Your task to perform on an android device: toggle javascript in the chrome app Image 0: 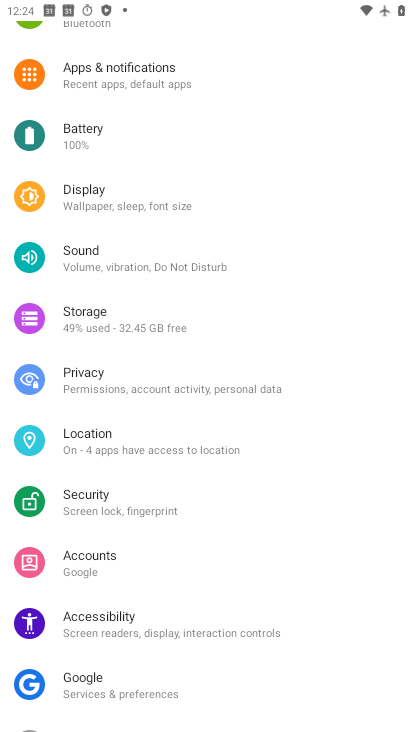
Step 0: press home button
Your task to perform on an android device: toggle javascript in the chrome app Image 1: 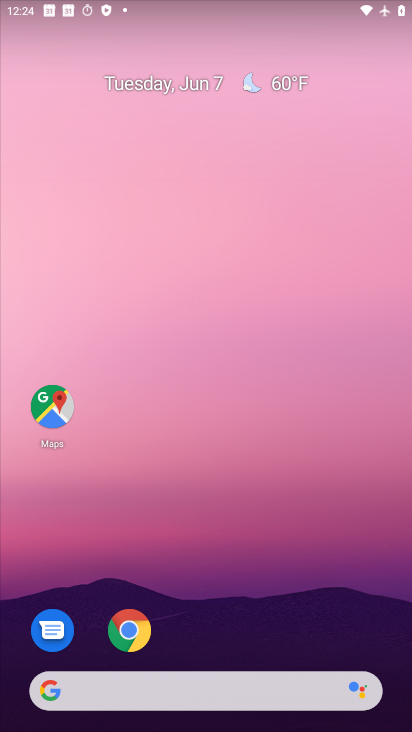
Step 1: drag from (365, 592) to (319, 83)
Your task to perform on an android device: toggle javascript in the chrome app Image 2: 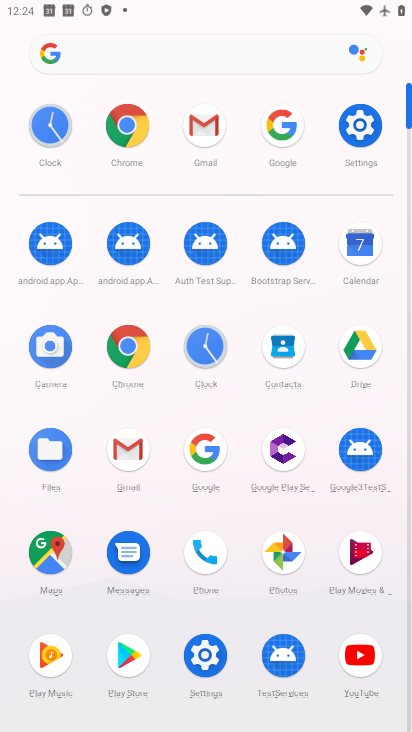
Step 2: click (145, 120)
Your task to perform on an android device: toggle javascript in the chrome app Image 3: 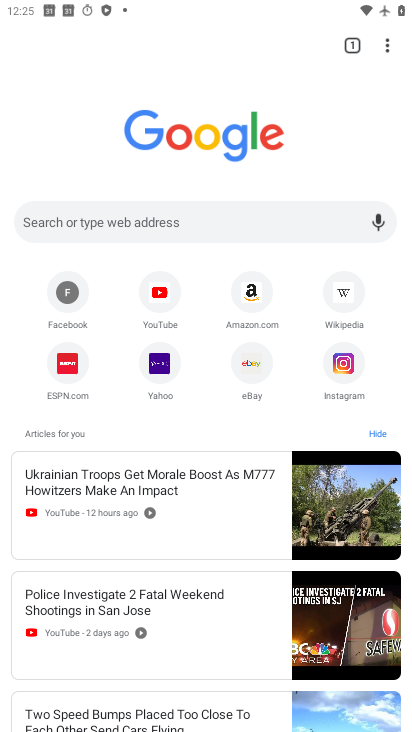
Step 3: click (382, 48)
Your task to perform on an android device: toggle javascript in the chrome app Image 4: 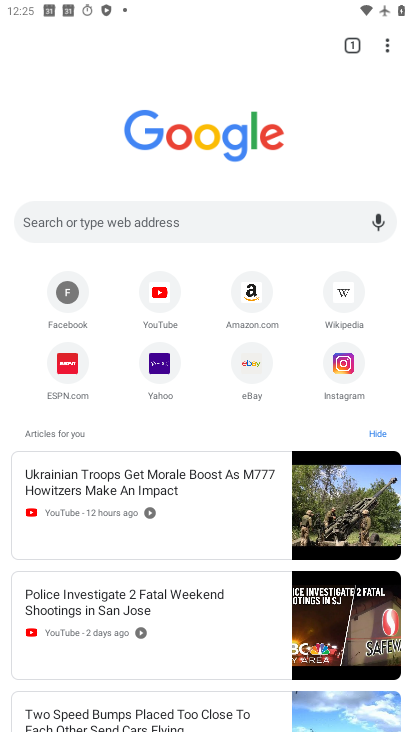
Step 4: click (383, 40)
Your task to perform on an android device: toggle javascript in the chrome app Image 5: 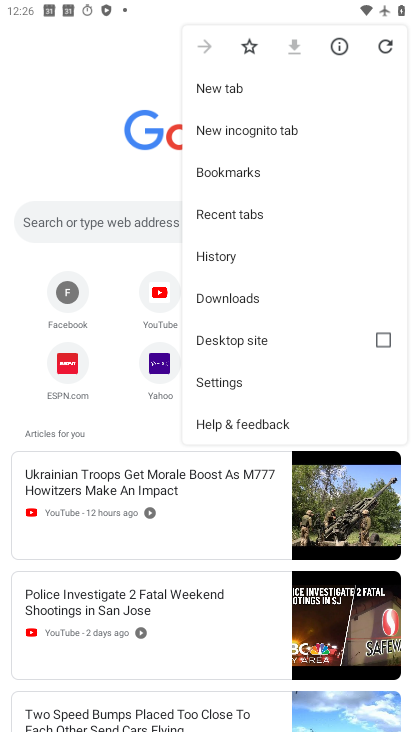
Step 5: click (248, 375)
Your task to perform on an android device: toggle javascript in the chrome app Image 6: 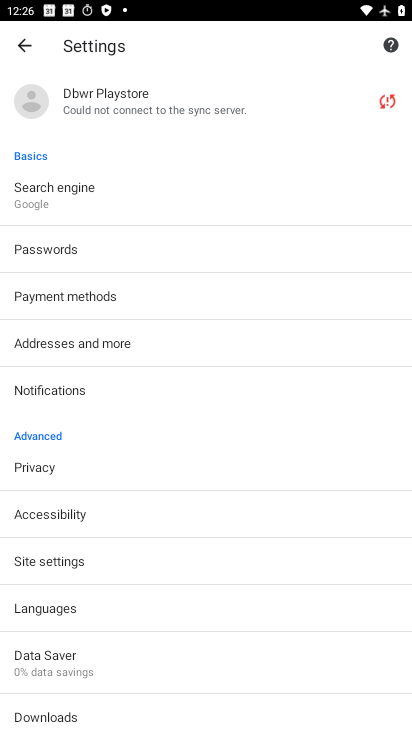
Step 6: click (98, 554)
Your task to perform on an android device: toggle javascript in the chrome app Image 7: 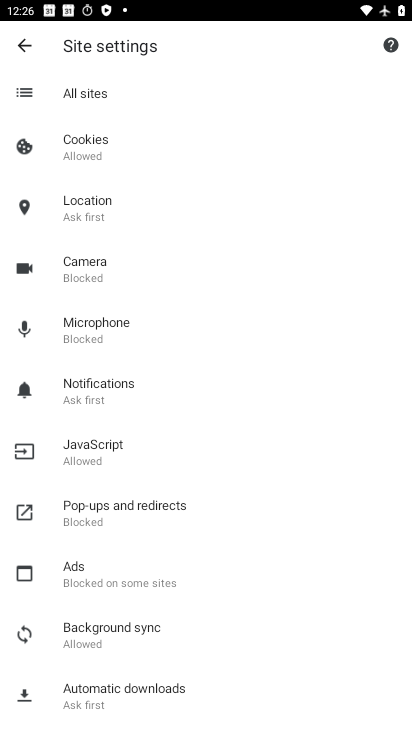
Step 7: click (131, 460)
Your task to perform on an android device: toggle javascript in the chrome app Image 8: 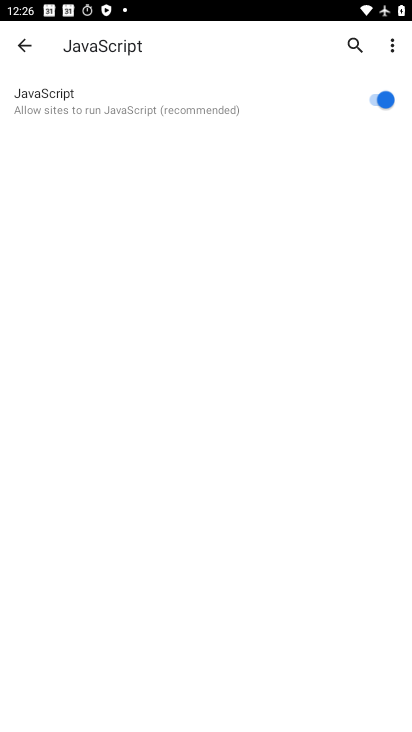
Step 8: click (365, 105)
Your task to perform on an android device: toggle javascript in the chrome app Image 9: 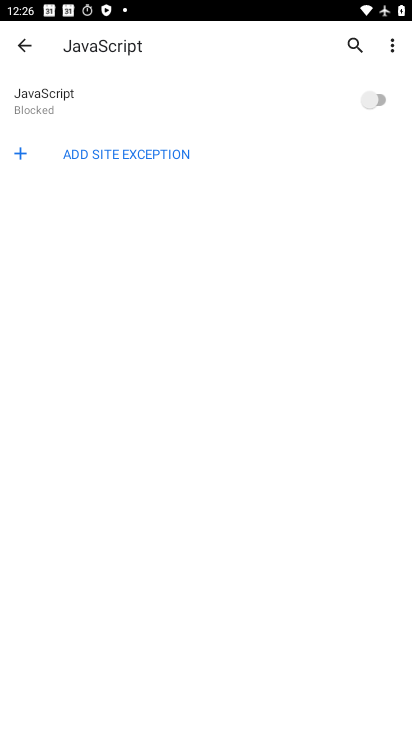
Step 9: task complete